Your task to perform on an android device: open the mobile data screen to see how much data has been used Image 0: 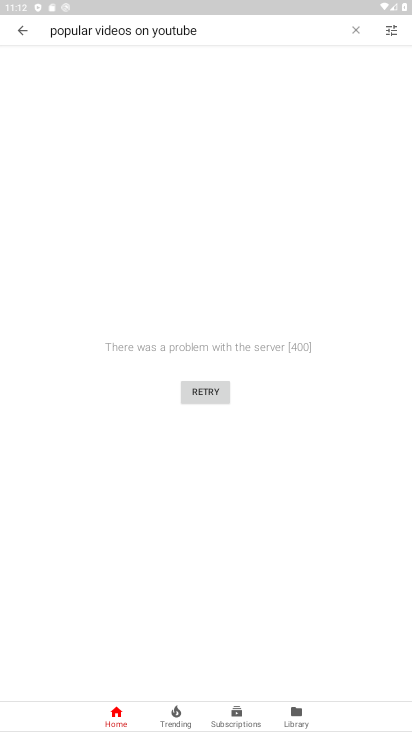
Step 0: press home button
Your task to perform on an android device: open the mobile data screen to see how much data has been used Image 1: 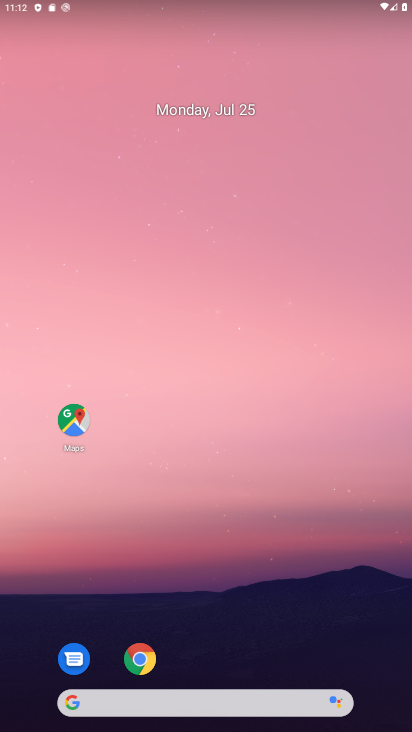
Step 1: drag from (69, 598) to (194, 237)
Your task to perform on an android device: open the mobile data screen to see how much data has been used Image 2: 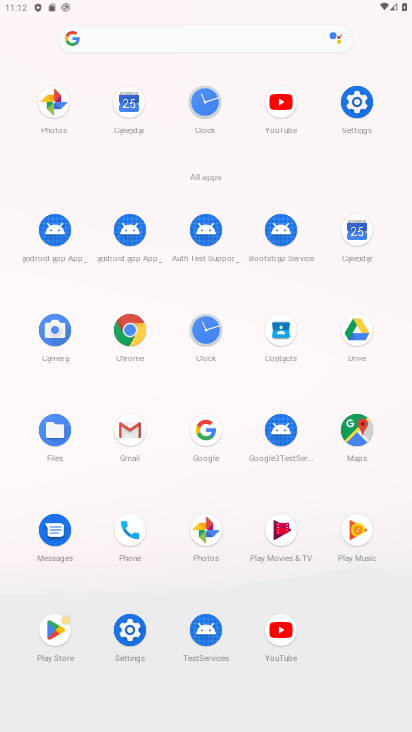
Step 2: click (126, 639)
Your task to perform on an android device: open the mobile data screen to see how much data has been used Image 3: 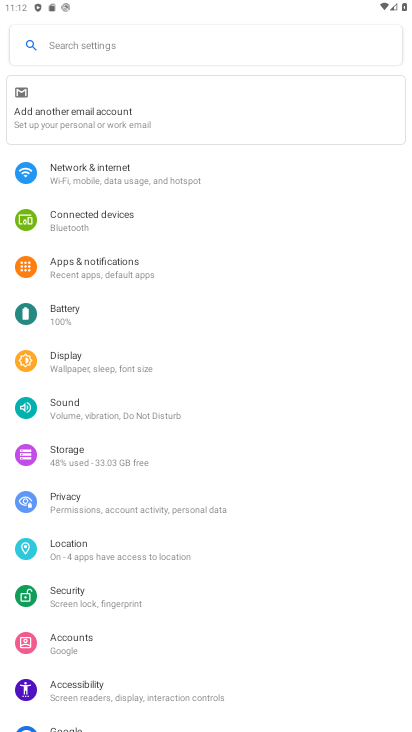
Step 3: click (54, 180)
Your task to perform on an android device: open the mobile data screen to see how much data has been used Image 4: 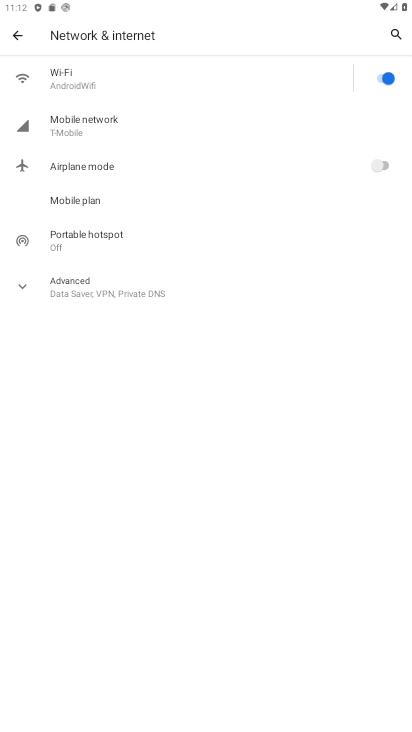
Step 4: click (80, 120)
Your task to perform on an android device: open the mobile data screen to see how much data has been used Image 5: 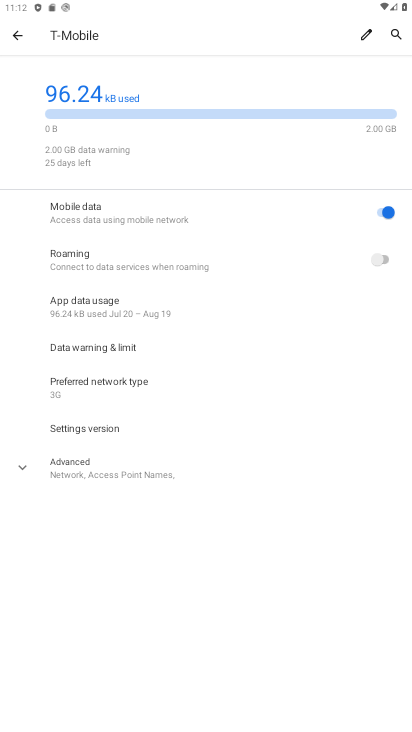
Step 5: task complete